Your task to perform on an android device: Check the news Image 0: 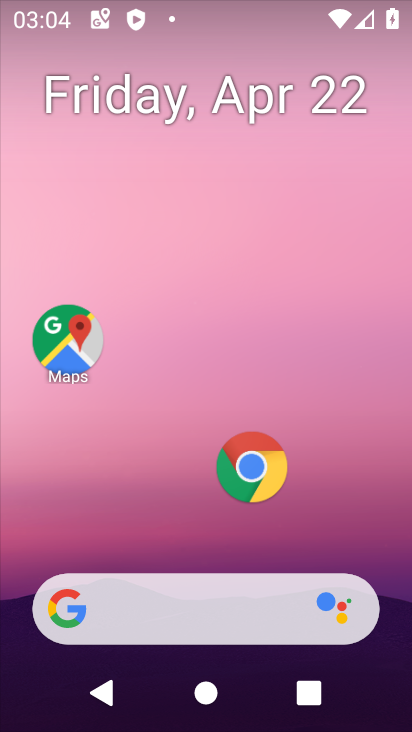
Step 0: click (245, 470)
Your task to perform on an android device: Check the news Image 1: 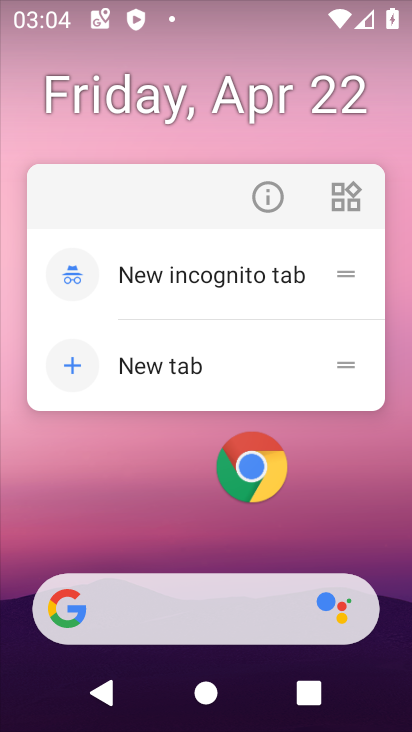
Step 1: click (280, 194)
Your task to perform on an android device: Check the news Image 2: 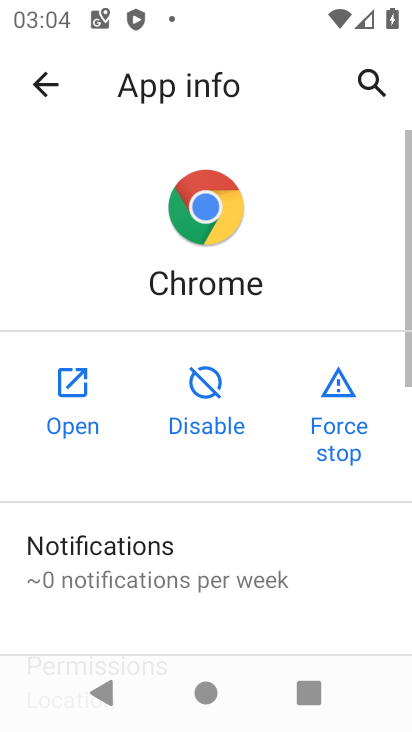
Step 2: click (86, 394)
Your task to perform on an android device: Check the news Image 3: 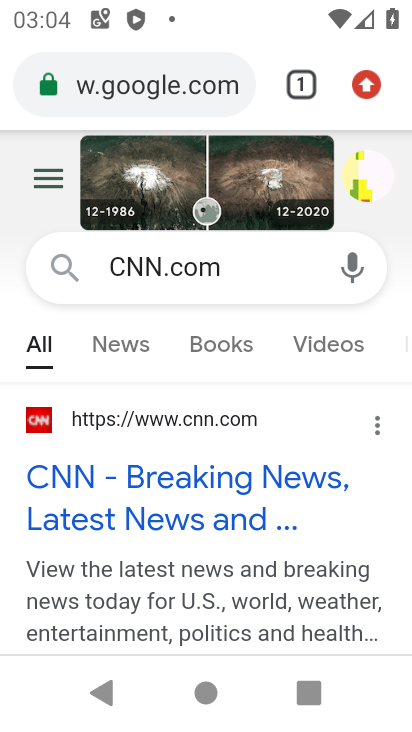
Step 3: click (173, 93)
Your task to perform on an android device: Check the news Image 4: 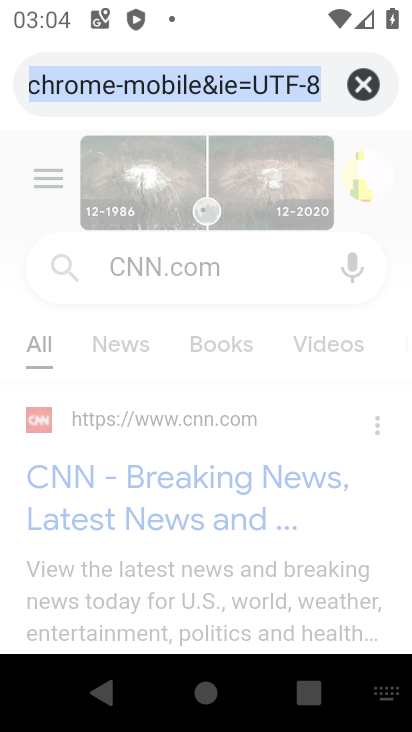
Step 4: type "news"
Your task to perform on an android device: Check the news Image 5: 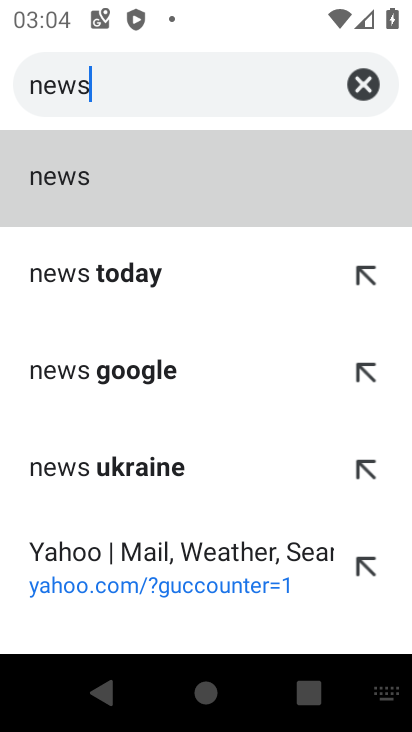
Step 5: click (79, 192)
Your task to perform on an android device: Check the news Image 6: 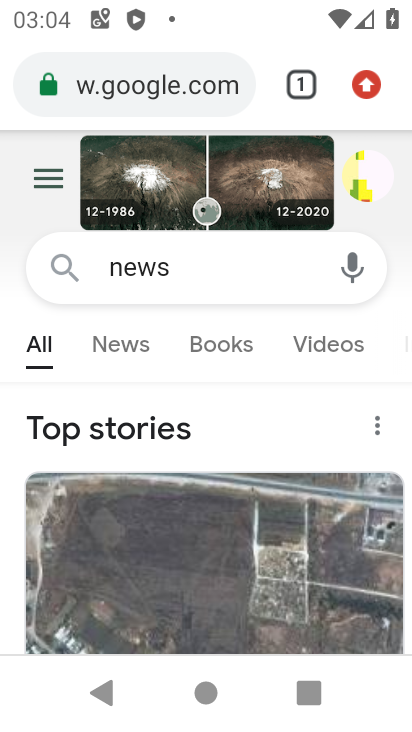
Step 6: task complete